Your task to perform on an android device: Open Youtube and go to "Your channel" Image 0: 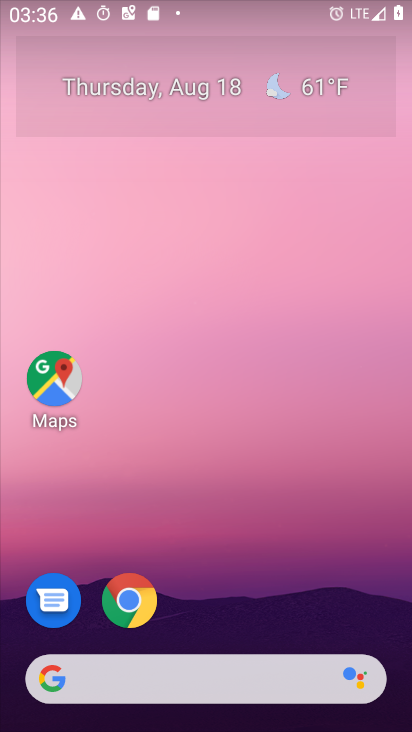
Step 0: drag from (229, 641) to (195, 88)
Your task to perform on an android device: Open Youtube and go to "Your channel" Image 1: 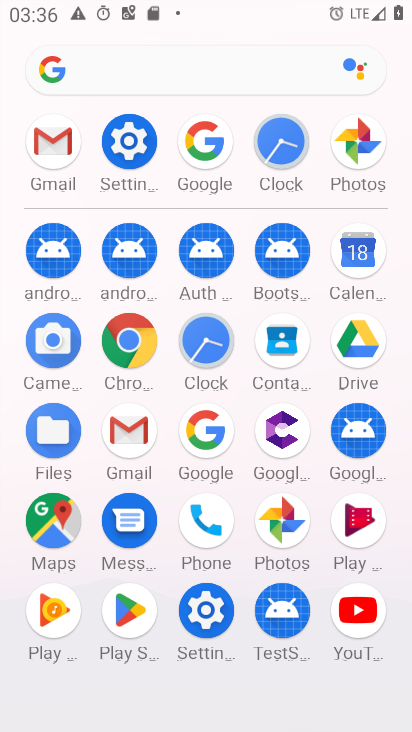
Step 1: click (353, 626)
Your task to perform on an android device: Open Youtube and go to "Your channel" Image 2: 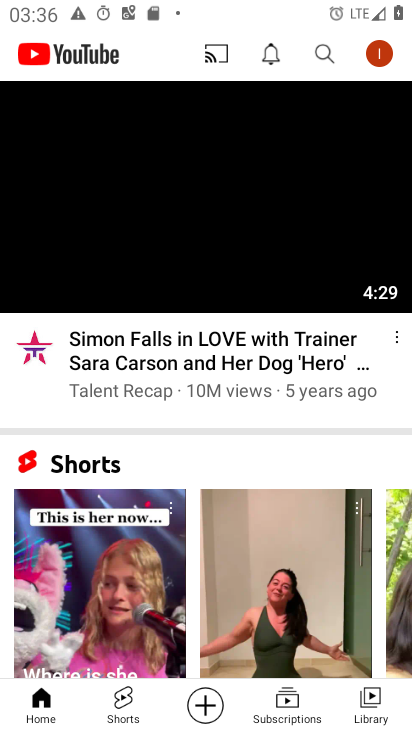
Step 2: click (378, 50)
Your task to perform on an android device: Open Youtube and go to "Your channel" Image 3: 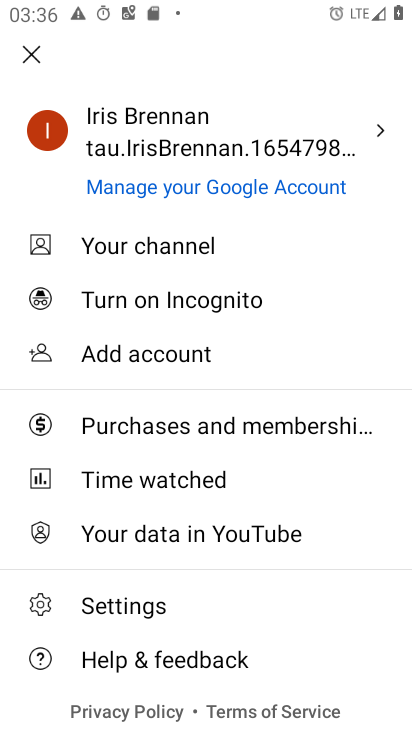
Step 3: click (148, 253)
Your task to perform on an android device: Open Youtube and go to "Your channel" Image 4: 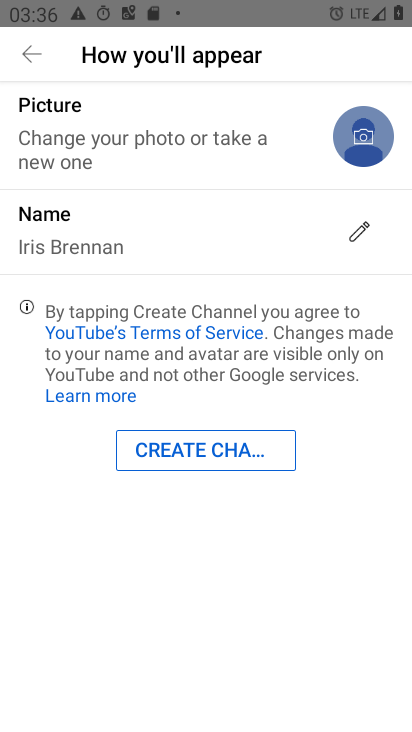
Step 4: task complete